Your task to perform on an android device: find snoozed emails in the gmail app Image 0: 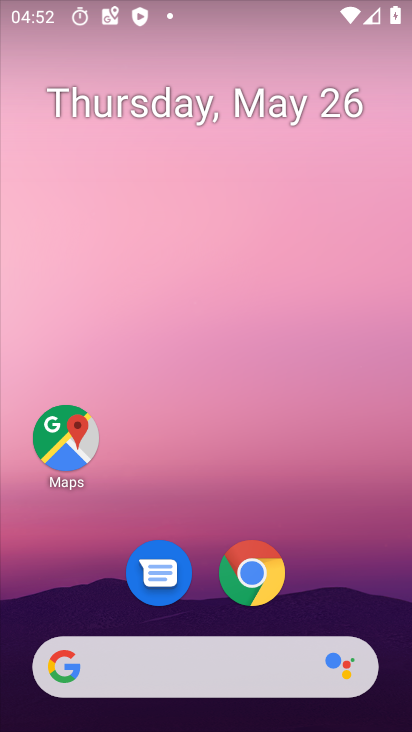
Step 0: drag from (293, 605) to (278, 2)
Your task to perform on an android device: find snoozed emails in the gmail app Image 1: 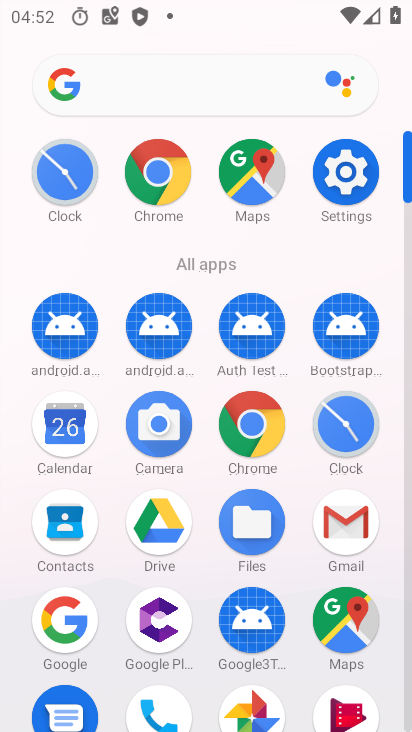
Step 1: click (339, 542)
Your task to perform on an android device: find snoozed emails in the gmail app Image 2: 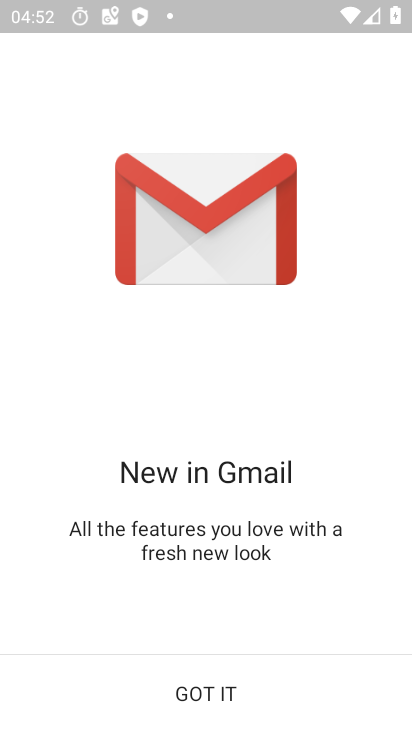
Step 2: click (202, 714)
Your task to perform on an android device: find snoozed emails in the gmail app Image 3: 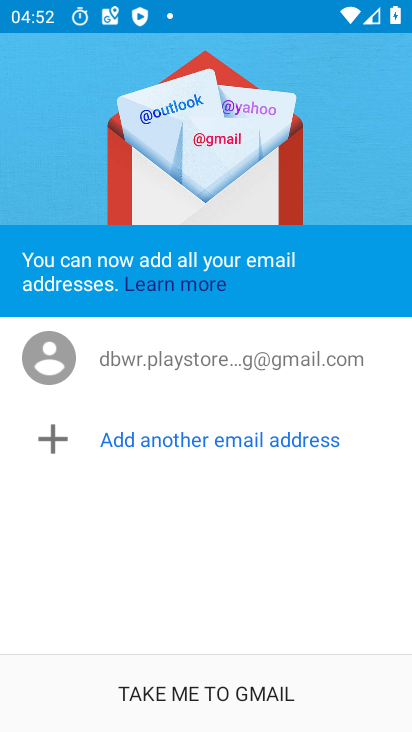
Step 3: click (202, 698)
Your task to perform on an android device: find snoozed emails in the gmail app Image 4: 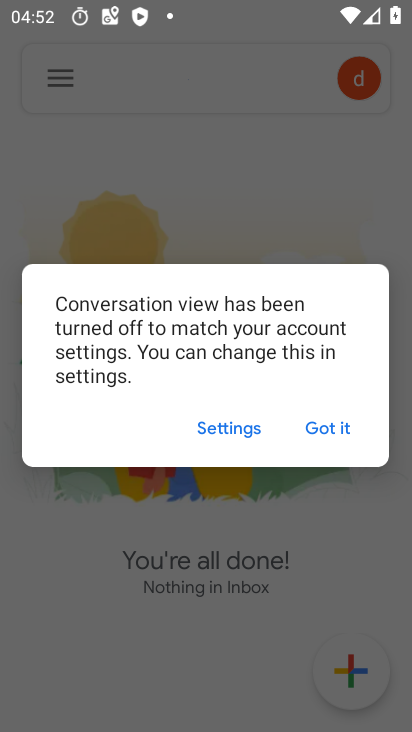
Step 4: click (337, 439)
Your task to perform on an android device: find snoozed emails in the gmail app Image 5: 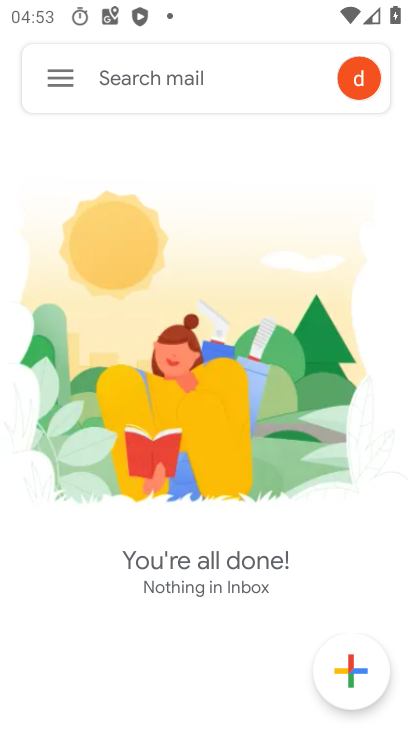
Step 5: click (56, 87)
Your task to perform on an android device: find snoozed emails in the gmail app Image 6: 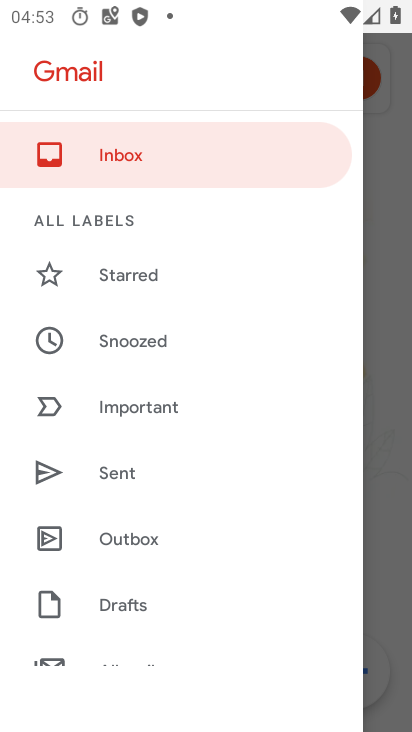
Step 6: click (144, 349)
Your task to perform on an android device: find snoozed emails in the gmail app Image 7: 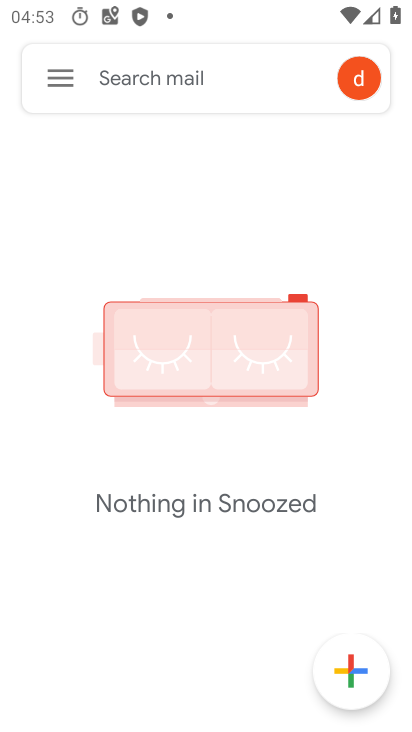
Step 7: task complete